Your task to perform on an android device: refresh tabs in the chrome app Image 0: 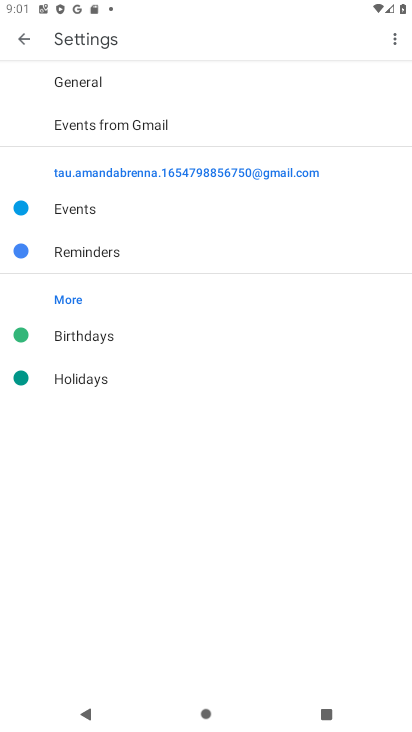
Step 0: press home button
Your task to perform on an android device: refresh tabs in the chrome app Image 1: 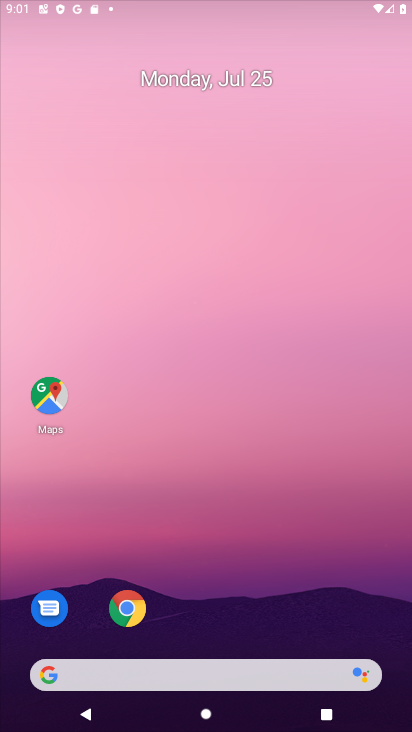
Step 1: drag from (188, 607) to (204, 228)
Your task to perform on an android device: refresh tabs in the chrome app Image 2: 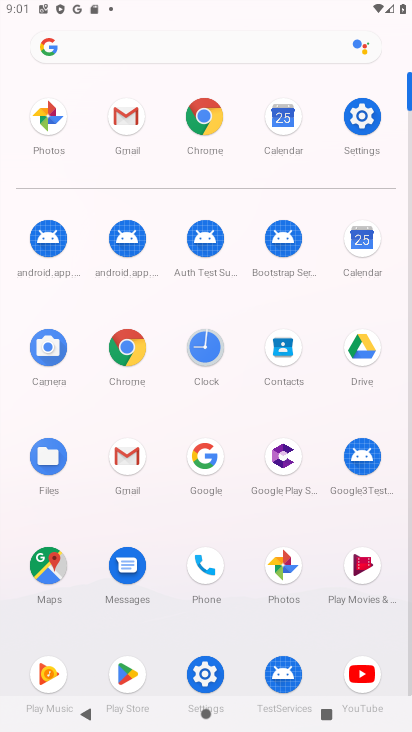
Step 2: click (141, 342)
Your task to perform on an android device: refresh tabs in the chrome app Image 3: 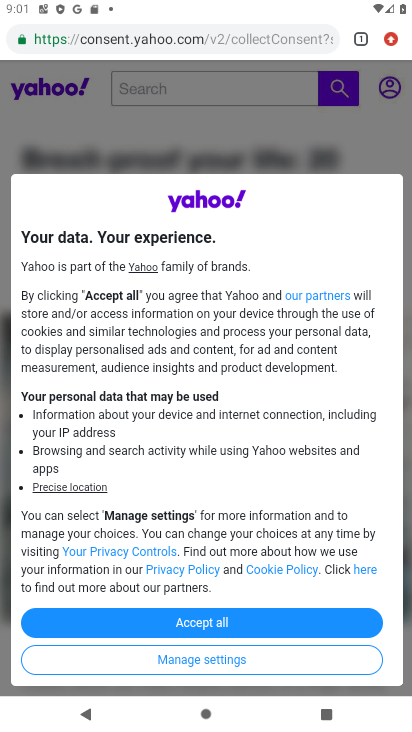
Step 3: click (390, 33)
Your task to perform on an android device: refresh tabs in the chrome app Image 4: 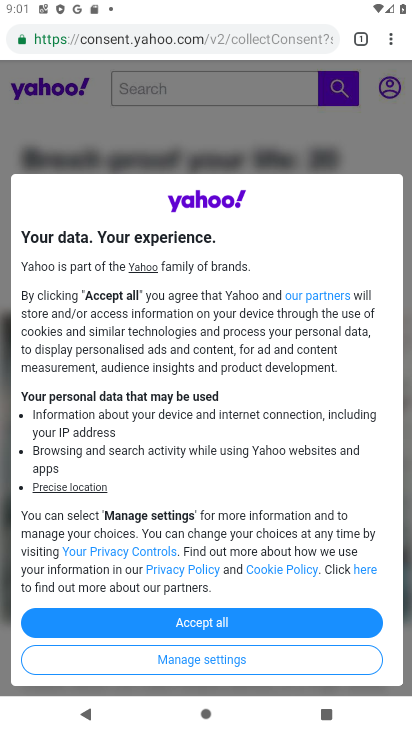
Step 4: click (411, 41)
Your task to perform on an android device: refresh tabs in the chrome app Image 5: 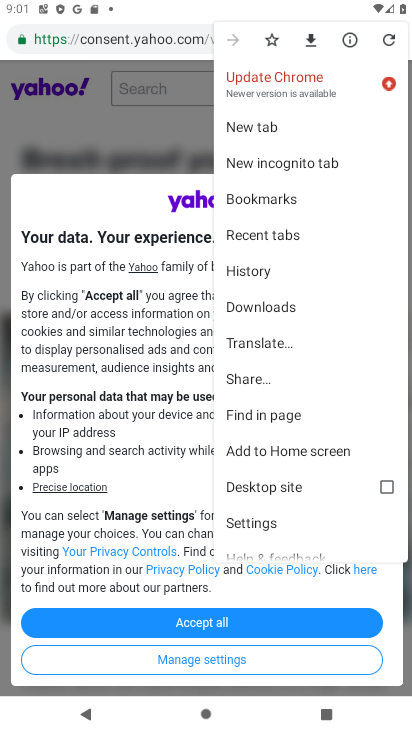
Step 5: click (385, 39)
Your task to perform on an android device: refresh tabs in the chrome app Image 6: 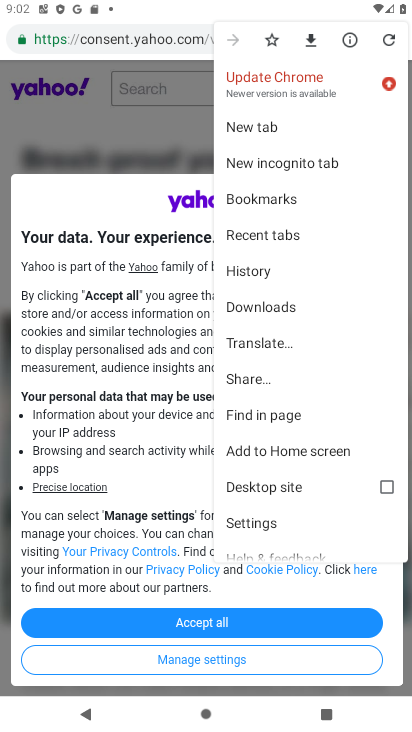
Step 6: task complete